Your task to perform on an android device: Go to settings Image 0: 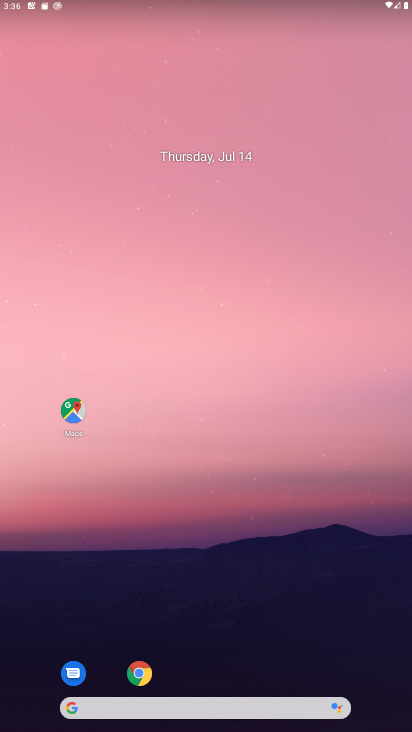
Step 0: press home button
Your task to perform on an android device: Go to settings Image 1: 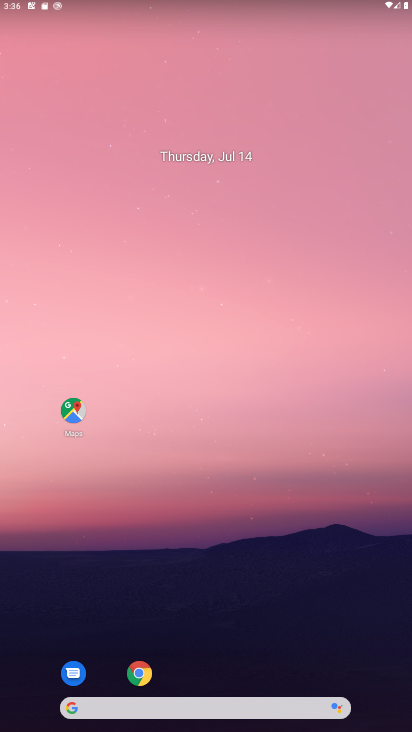
Step 1: click (228, 106)
Your task to perform on an android device: Go to settings Image 2: 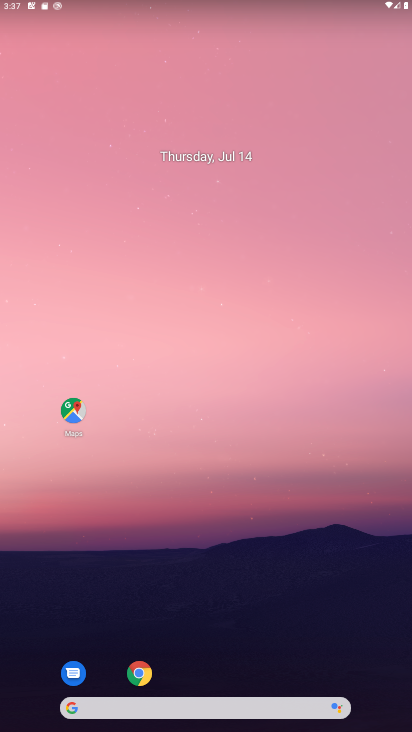
Step 2: drag from (203, 384) to (219, 137)
Your task to perform on an android device: Go to settings Image 3: 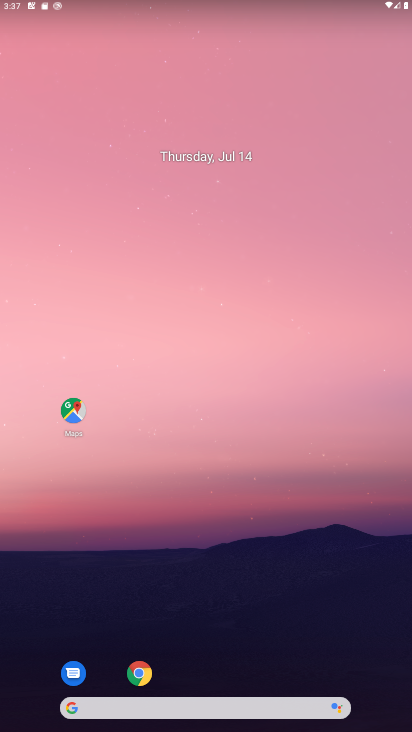
Step 3: drag from (230, 642) to (256, 0)
Your task to perform on an android device: Go to settings Image 4: 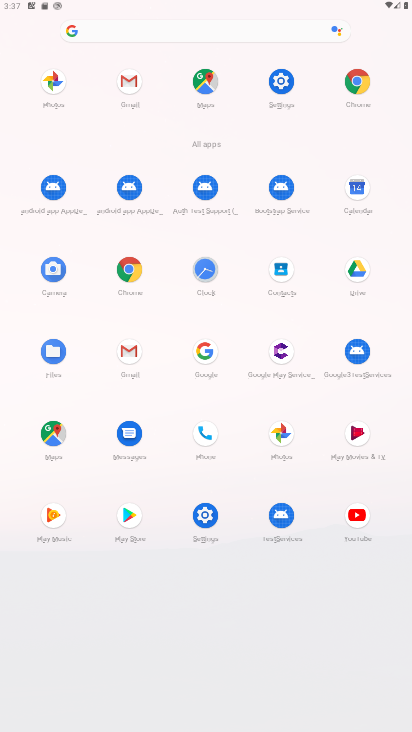
Step 4: click (277, 77)
Your task to perform on an android device: Go to settings Image 5: 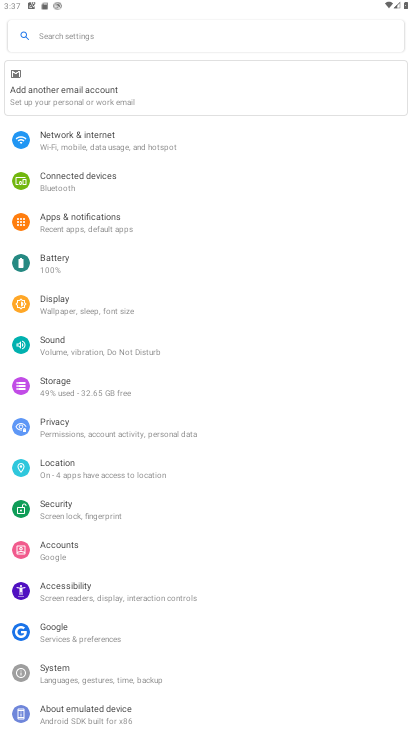
Step 5: task complete